Your task to perform on an android device: Go to privacy settings Image 0: 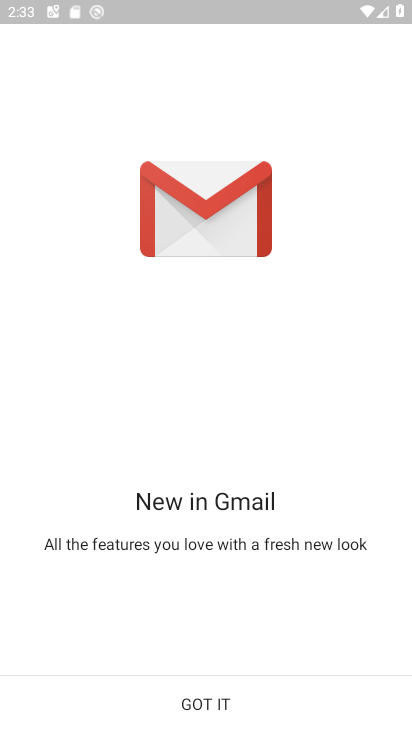
Step 0: press home button
Your task to perform on an android device: Go to privacy settings Image 1: 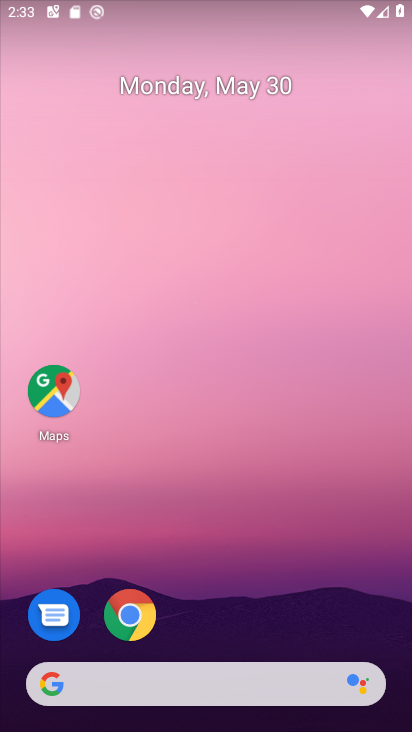
Step 1: drag from (257, 558) to (278, 17)
Your task to perform on an android device: Go to privacy settings Image 2: 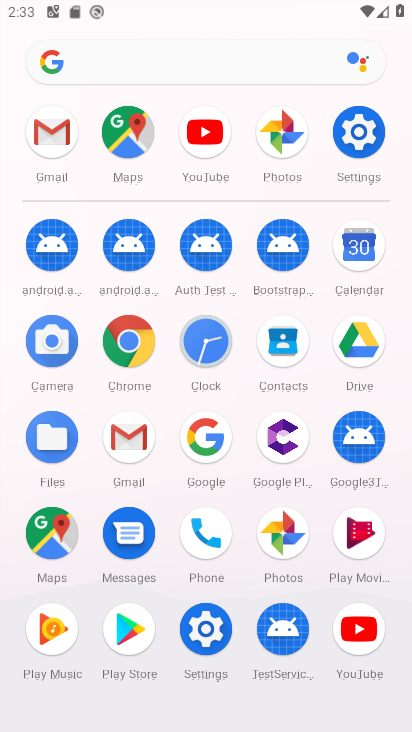
Step 2: click (364, 131)
Your task to perform on an android device: Go to privacy settings Image 3: 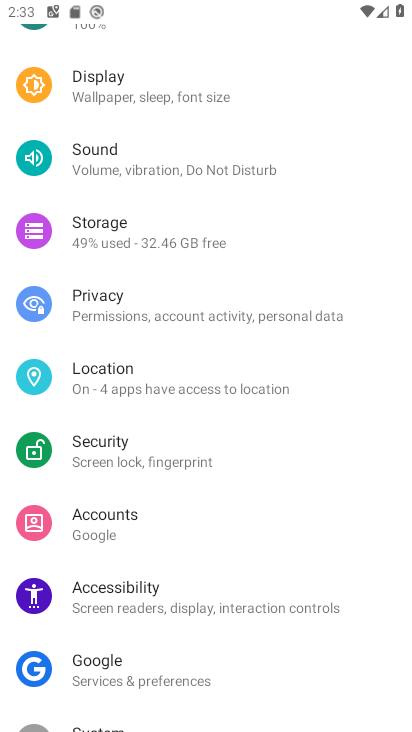
Step 3: click (212, 316)
Your task to perform on an android device: Go to privacy settings Image 4: 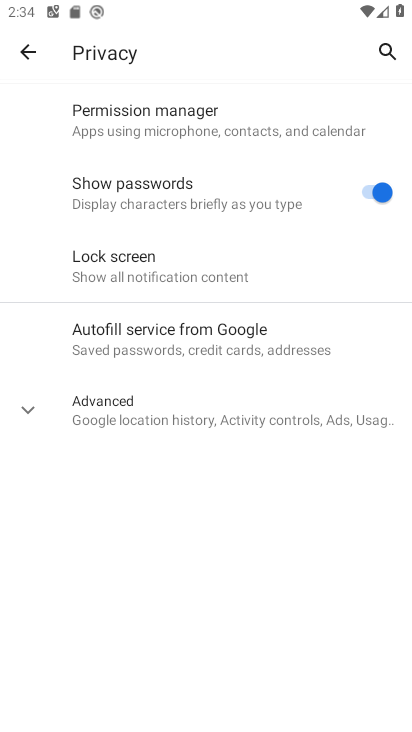
Step 4: task complete